Your task to perform on an android device: toggle show notifications on the lock screen Image 0: 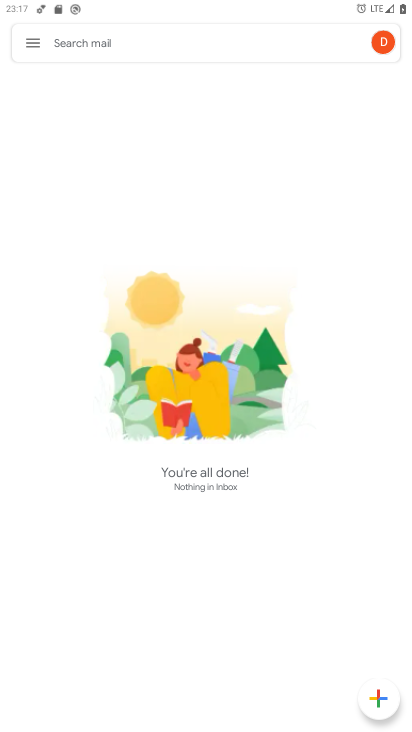
Step 0: press home button
Your task to perform on an android device: toggle show notifications on the lock screen Image 1: 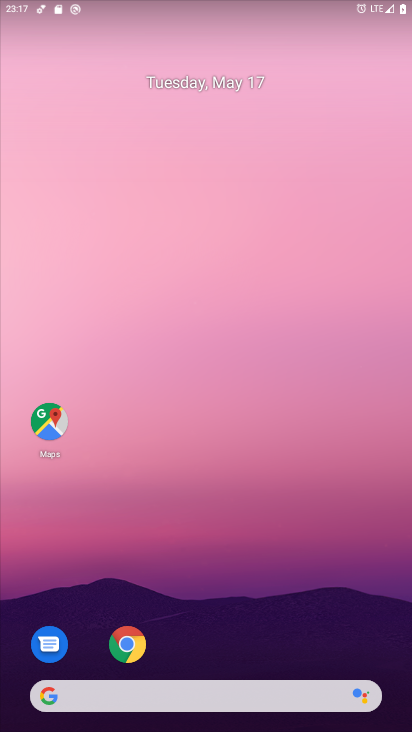
Step 1: drag from (215, 661) to (267, 361)
Your task to perform on an android device: toggle show notifications on the lock screen Image 2: 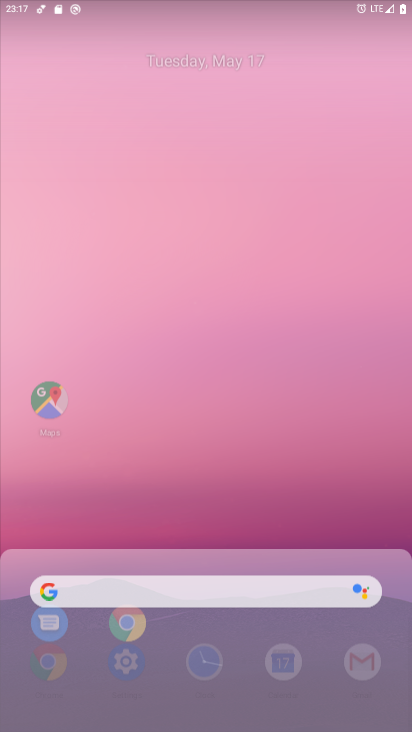
Step 2: click (289, 155)
Your task to perform on an android device: toggle show notifications on the lock screen Image 3: 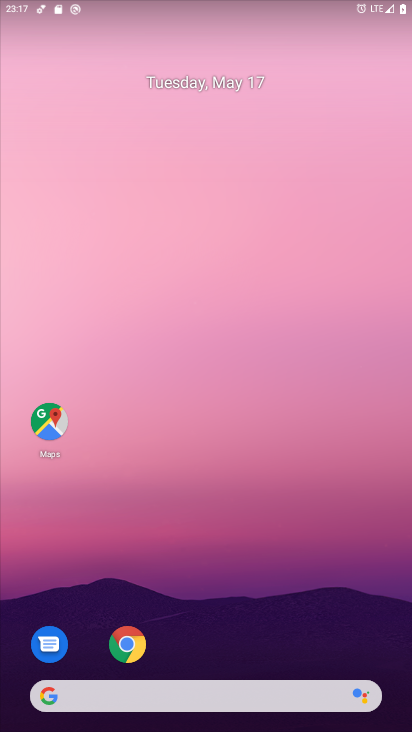
Step 3: drag from (223, 649) to (267, 202)
Your task to perform on an android device: toggle show notifications on the lock screen Image 4: 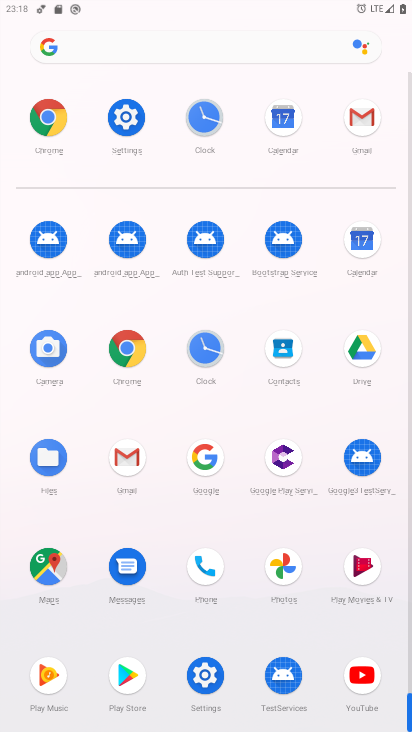
Step 4: click (125, 118)
Your task to perform on an android device: toggle show notifications on the lock screen Image 5: 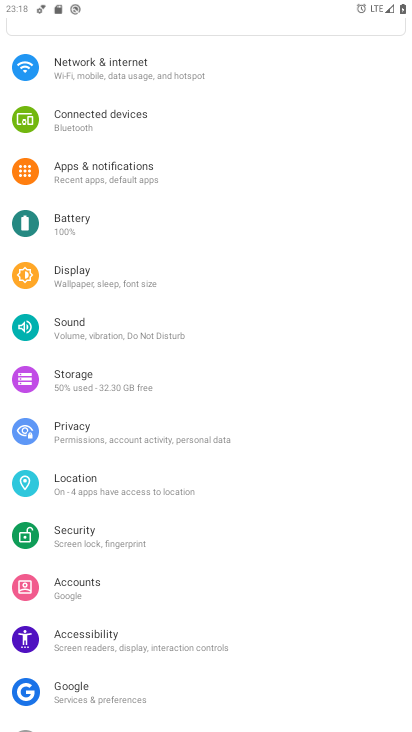
Step 5: click (167, 166)
Your task to perform on an android device: toggle show notifications on the lock screen Image 6: 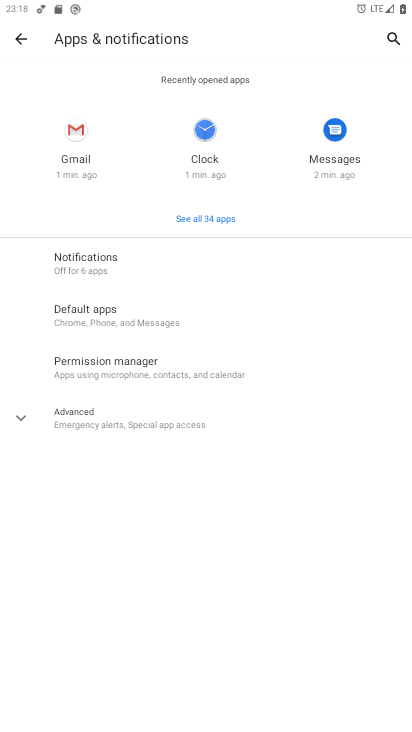
Step 6: click (117, 266)
Your task to perform on an android device: toggle show notifications on the lock screen Image 7: 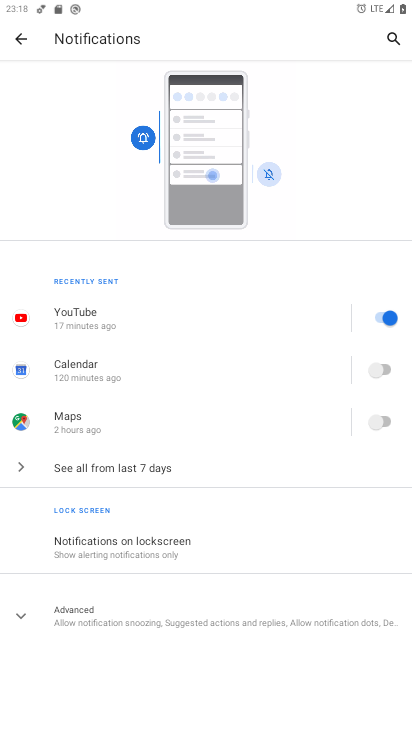
Step 7: click (199, 547)
Your task to perform on an android device: toggle show notifications on the lock screen Image 8: 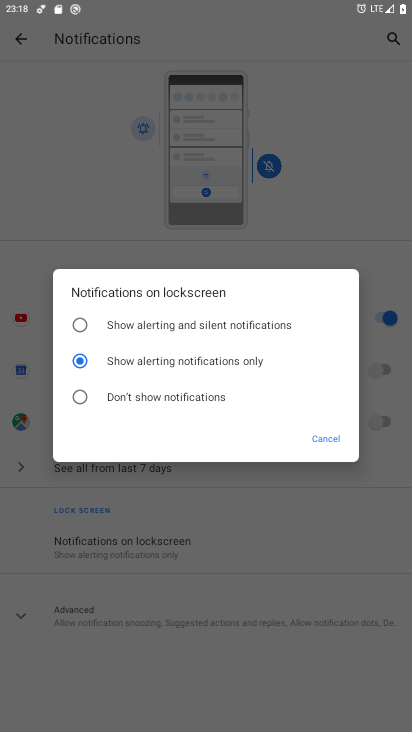
Step 8: click (85, 318)
Your task to perform on an android device: toggle show notifications on the lock screen Image 9: 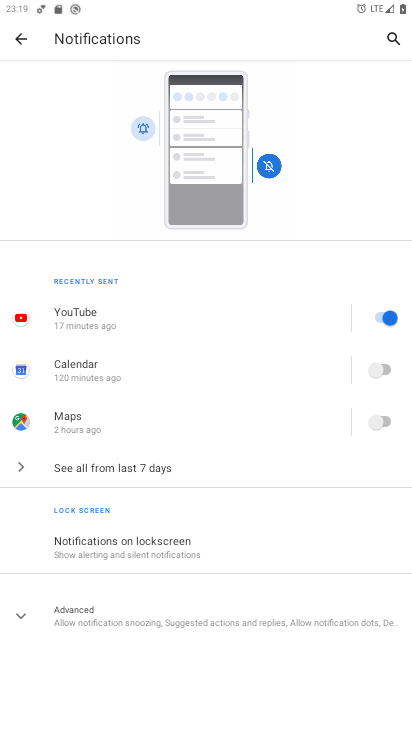
Step 9: click (147, 534)
Your task to perform on an android device: toggle show notifications on the lock screen Image 10: 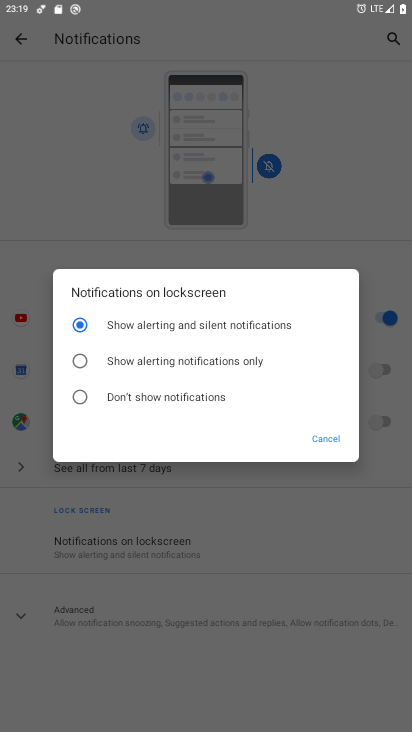
Step 10: click (112, 354)
Your task to perform on an android device: toggle show notifications on the lock screen Image 11: 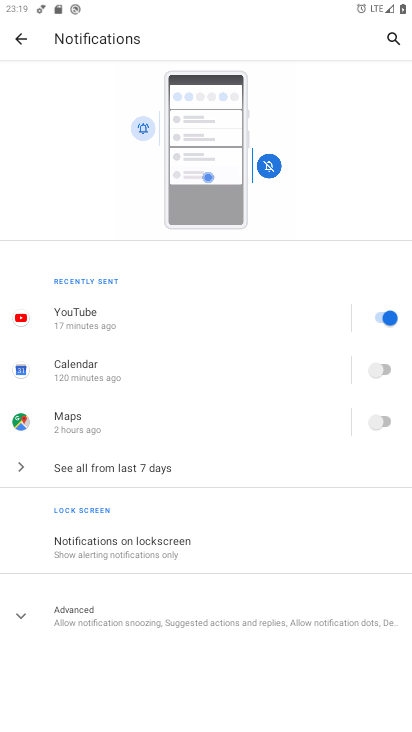
Step 11: task complete